Your task to perform on an android device: Open Android settings Image 0: 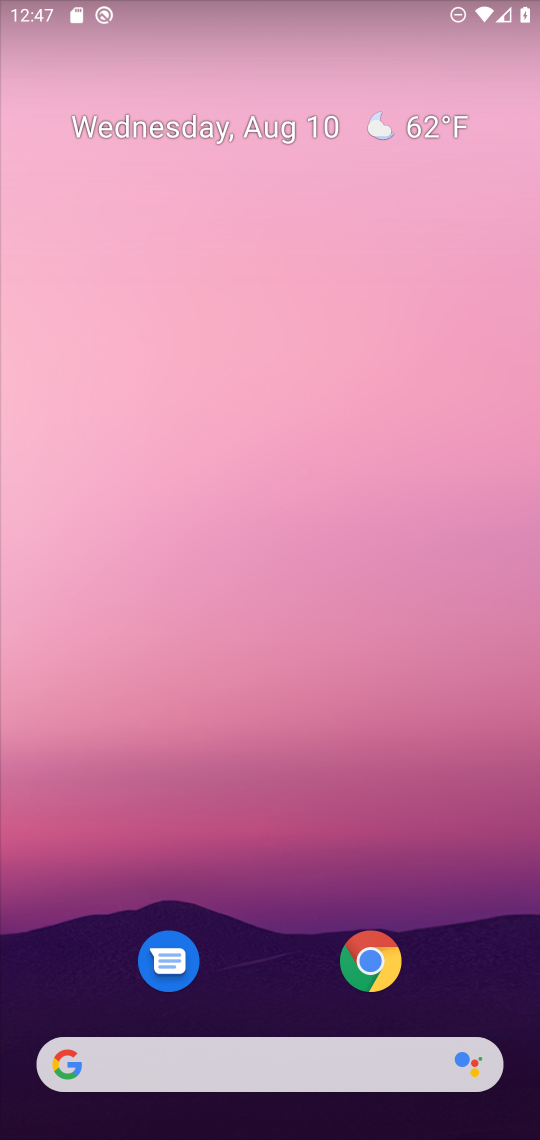
Step 0: press home button
Your task to perform on an android device: Open Android settings Image 1: 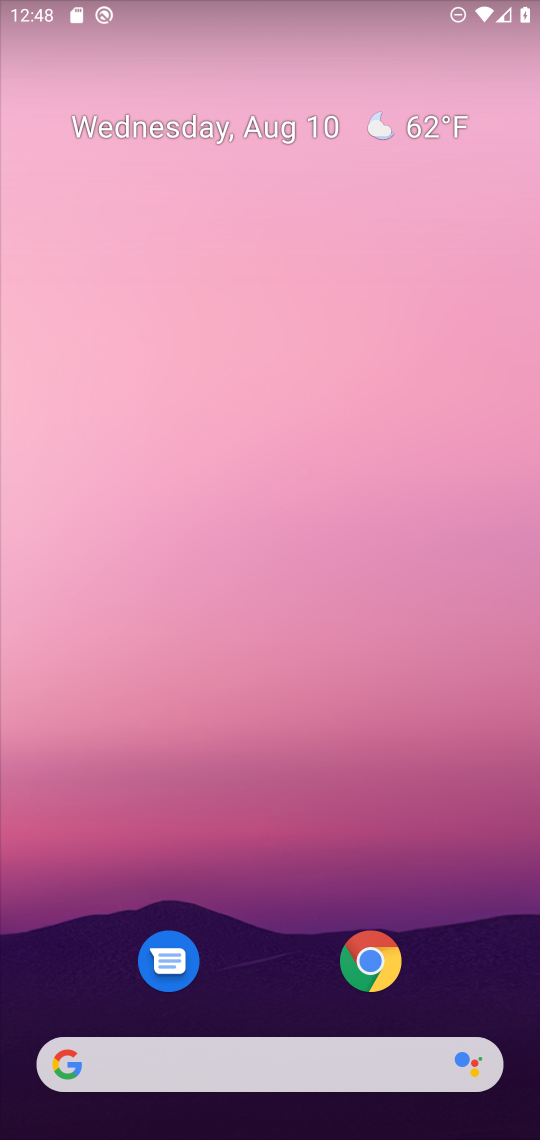
Step 1: drag from (275, 1006) to (232, 227)
Your task to perform on an android device: Open Android settings Image 2: 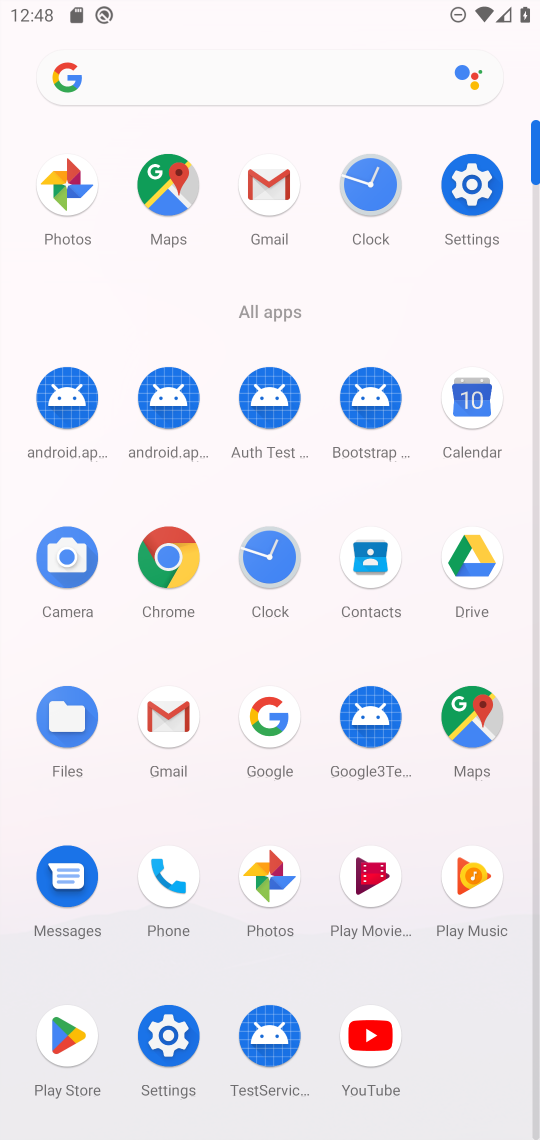
Step 2: click (470, 188)
Your task to perform on an android device: Open Android settings Image 3: 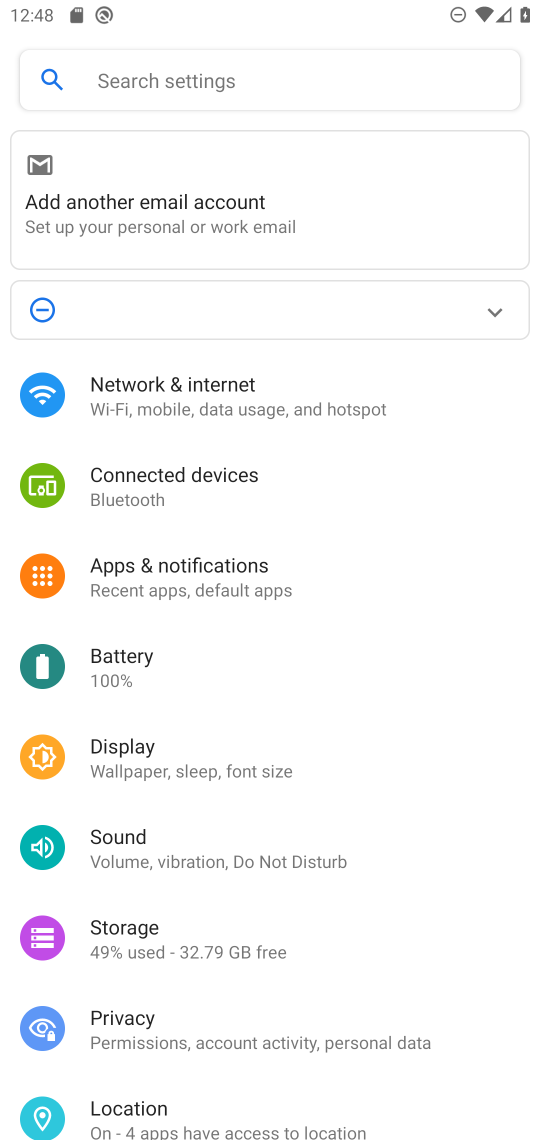
Step 3: task complete